Your task to perform on an android device: Go to accessibility settings Image 0: 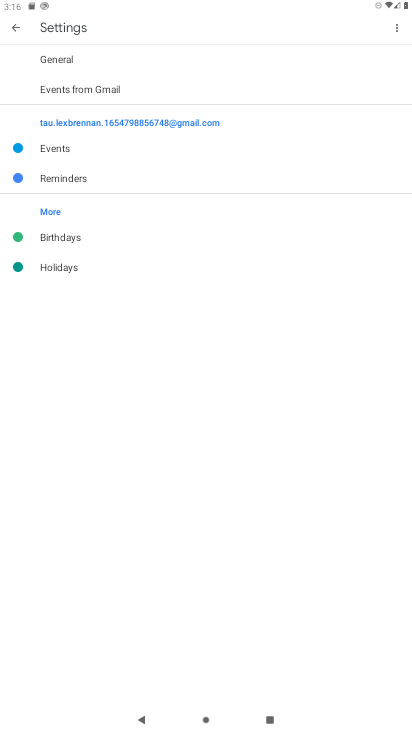
Step 0: drag from (215, 682) to (125, 32)
Your task to perform on an android device: Go to accessibility settings Image 1: 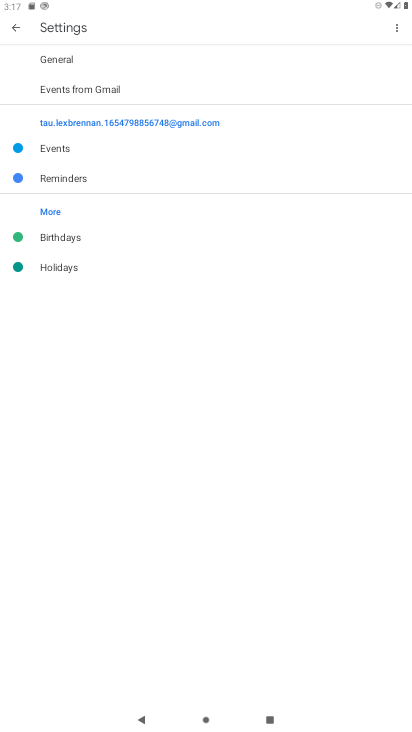
Step 1: press home button
Your task to perform on an android device: Go to accessibility settings Image 2: 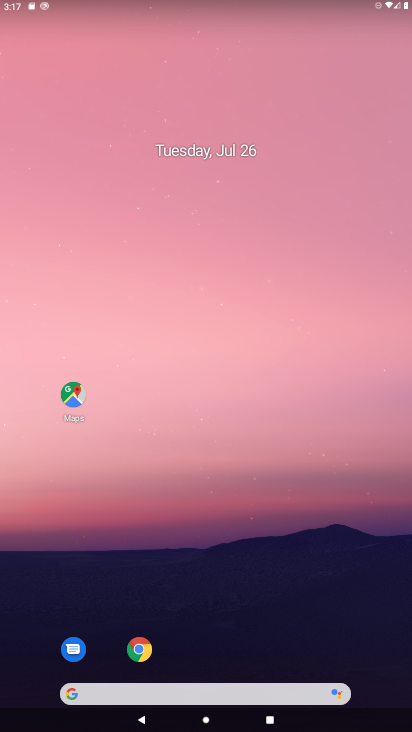
Step 2: drag from (201, 689) to (194, 179)
Your task to perform on an android device: Go to accessibility settings Image 3: 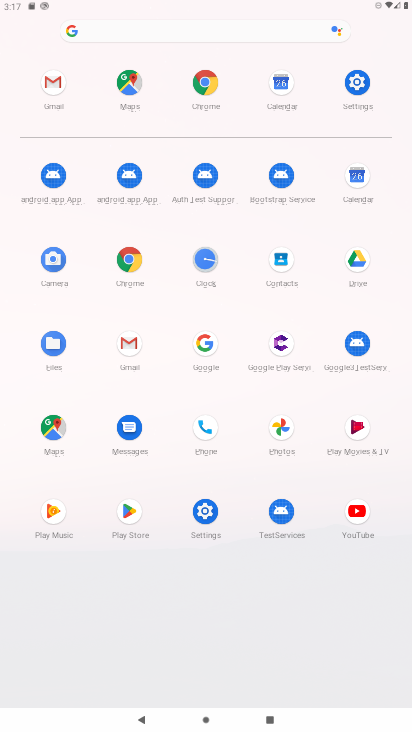
Step 3: click (203, 510)
Your task to perform on an android device: Go to accessibility settings Image 4: 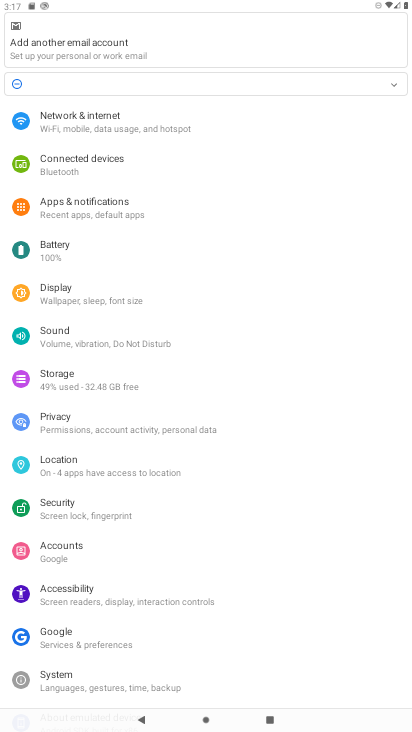
Step 4: click (159, 599)
Your task to perform on an android device: Go to accessibility settings Image 5: 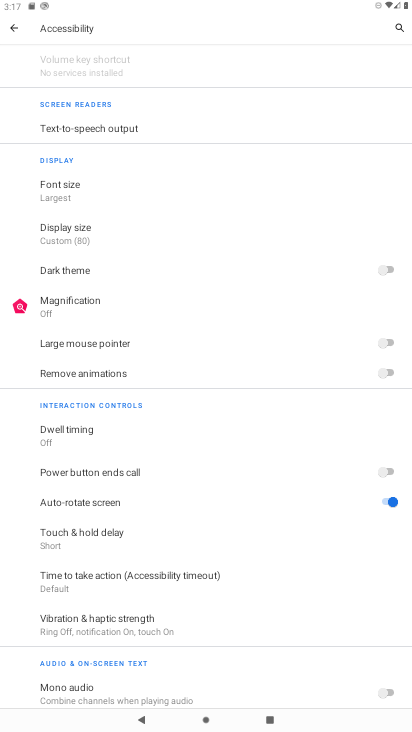
Step 5: task complete